Your task to perform on an android device: Add "jbl flip 4" to the cart on costco.com Image 0: 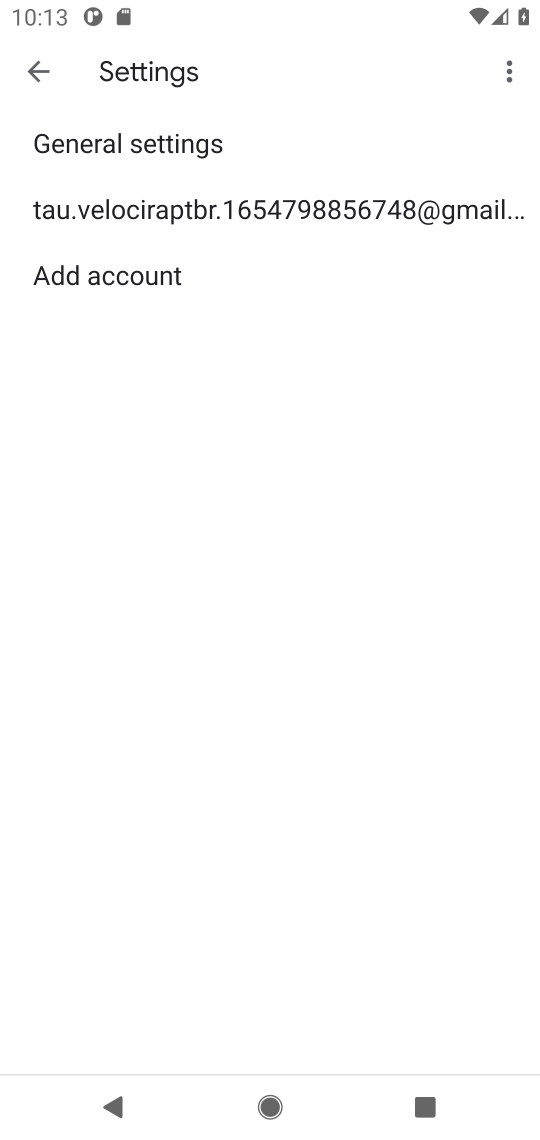
Step 0: press home button
Your task to perform on an android device: Add "jbl flip 4" to the cart on costco.com Image 1: 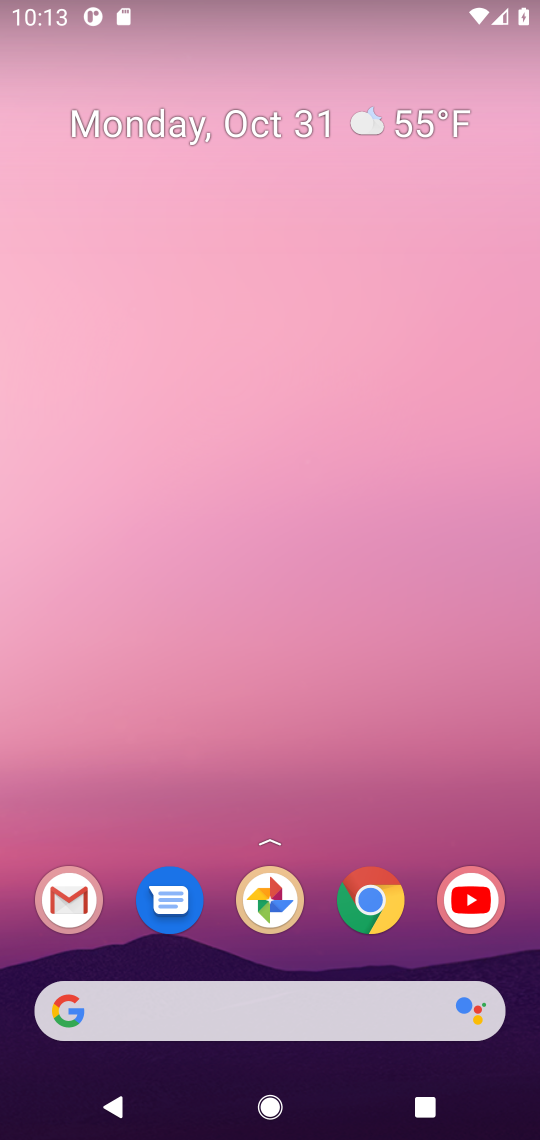
Step 1: click (368, 911)
Your task to perform on an android device: Add "jbl flip 4" to the cart on costco.com Image 2: 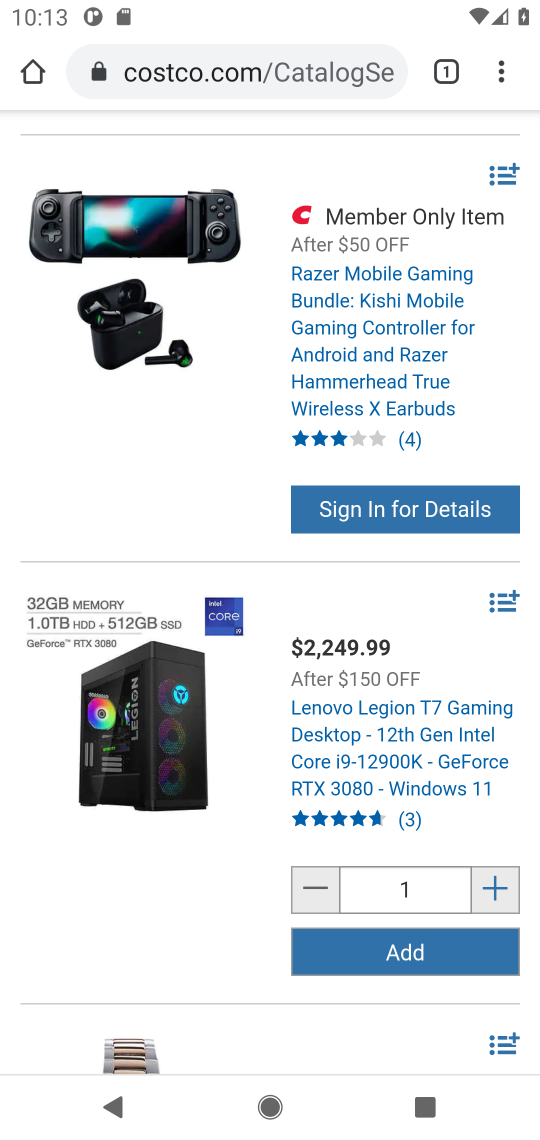
Step 2: drag from (201, 437) to (244, 999)
Your task to perform on an android device: Add "jbl flip 4" to the cart on costco.com Image 3: 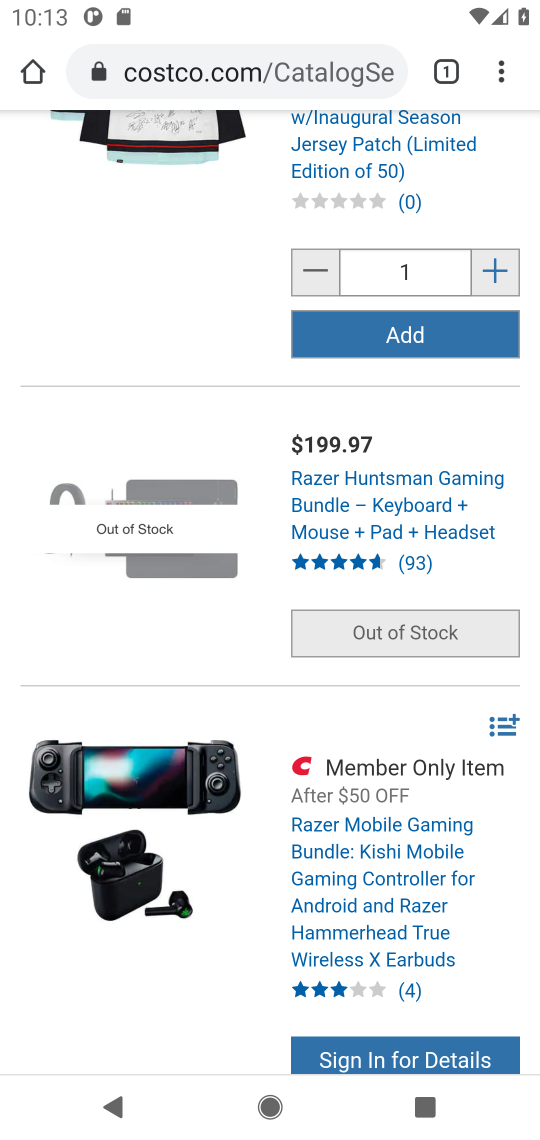
Step 3: drag from (170, 327) to (194, 958)
Your task to perform on an android device: Add "jbl flip 4" to the cart on costco.com Image 4: 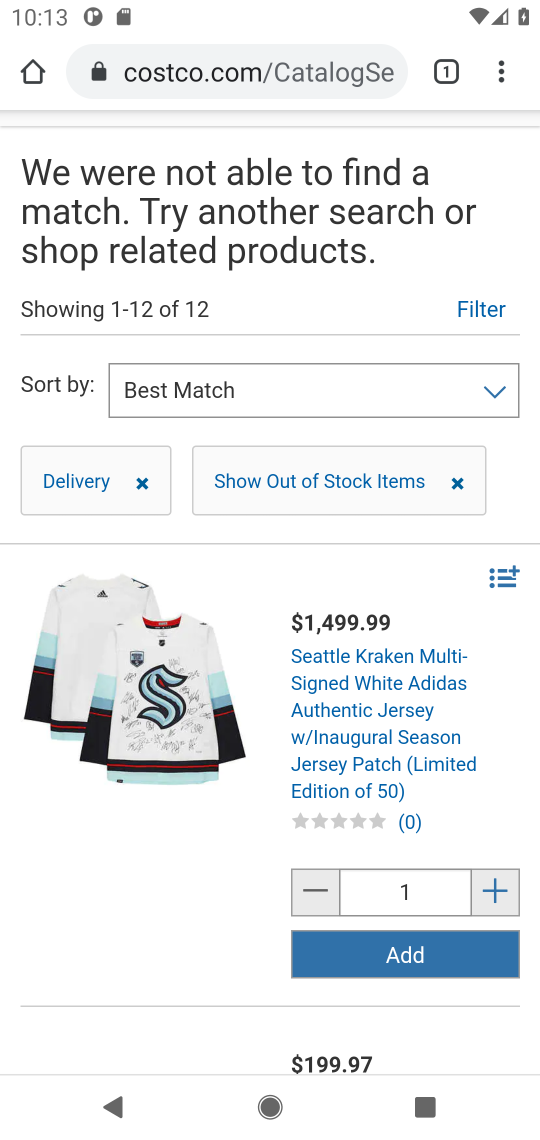
Step 4: drag from (185, 283) to (209, 807)
Your task to perform on an android device: Add "jbl flip 4" to the cart on costco.com Image 5: 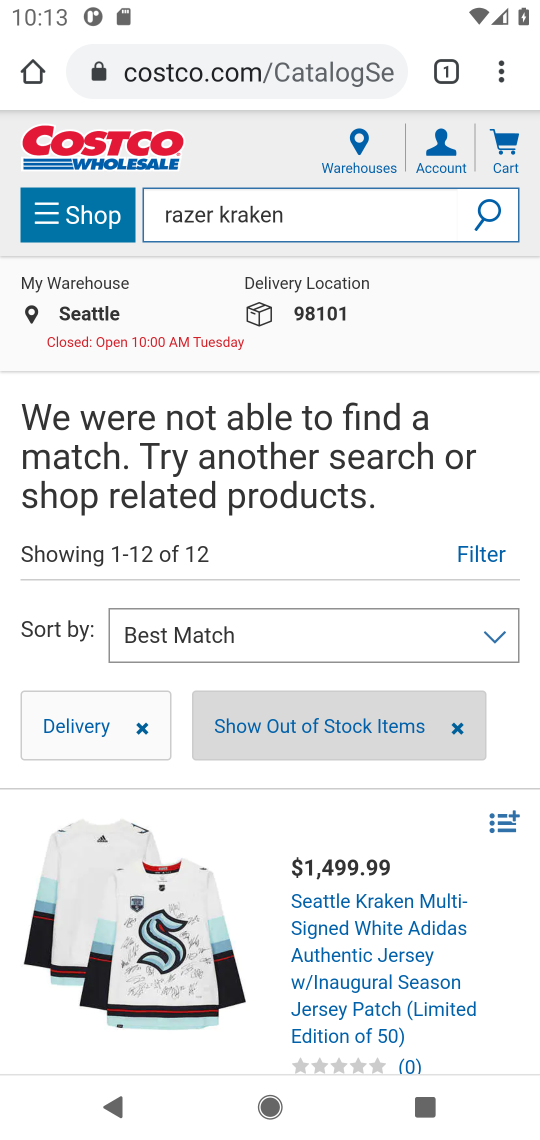
Step 5: click (280, 213)
Your task to perform on an android device: Add "jbl flip 4" to the cart on costco.com Image 6: 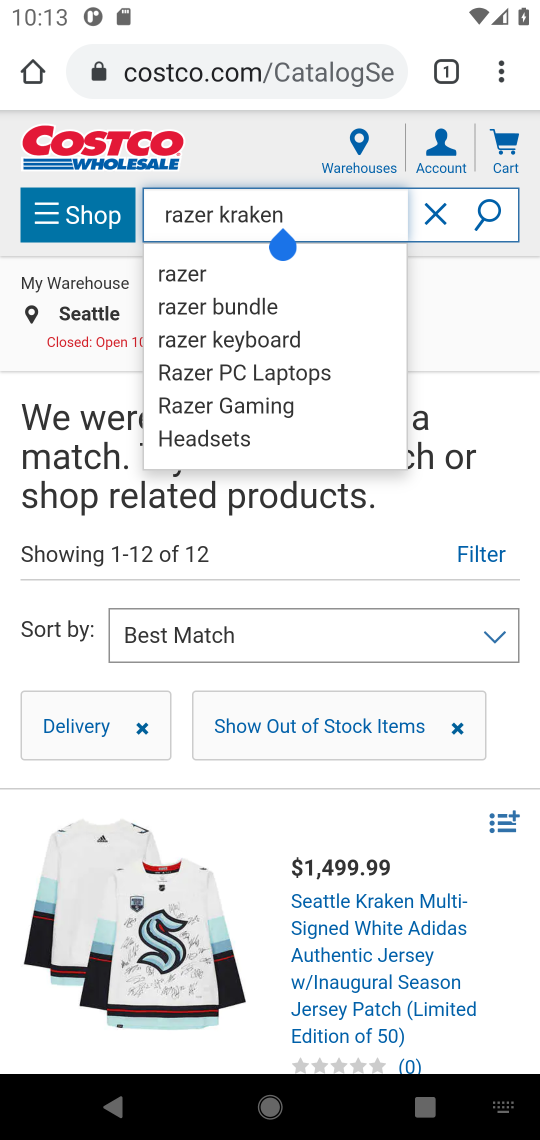
Step 6: click (439, 217)
Your task to perform on an android device: Add "jbl flip 4" to the cart on costco.com Image 7: 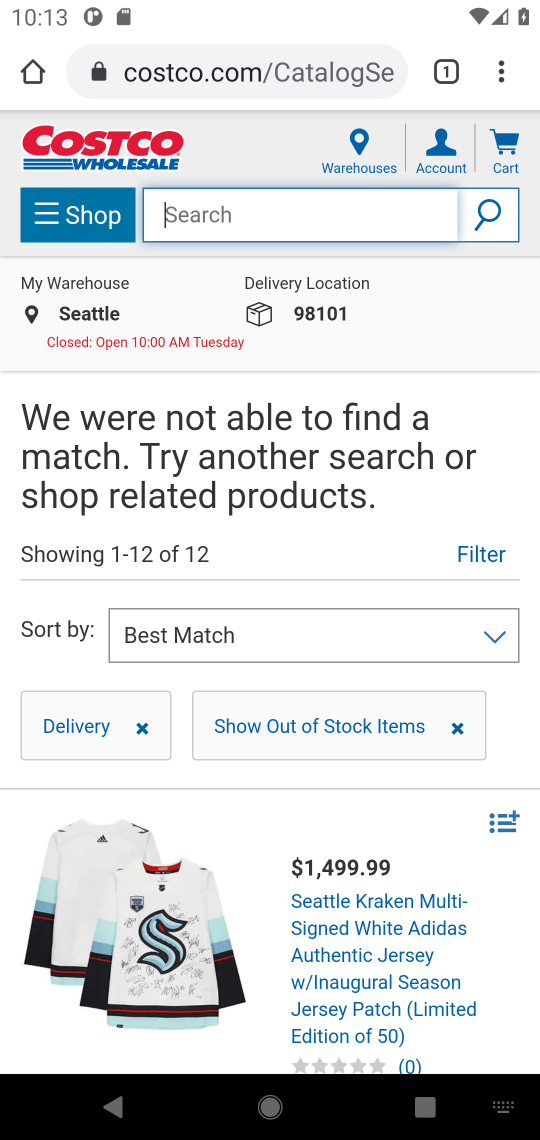
Step 7: type "jbl flip 4"
Your task to perform on an android device: Add "jbl flip 4" to the cart on costco.com Image 8: 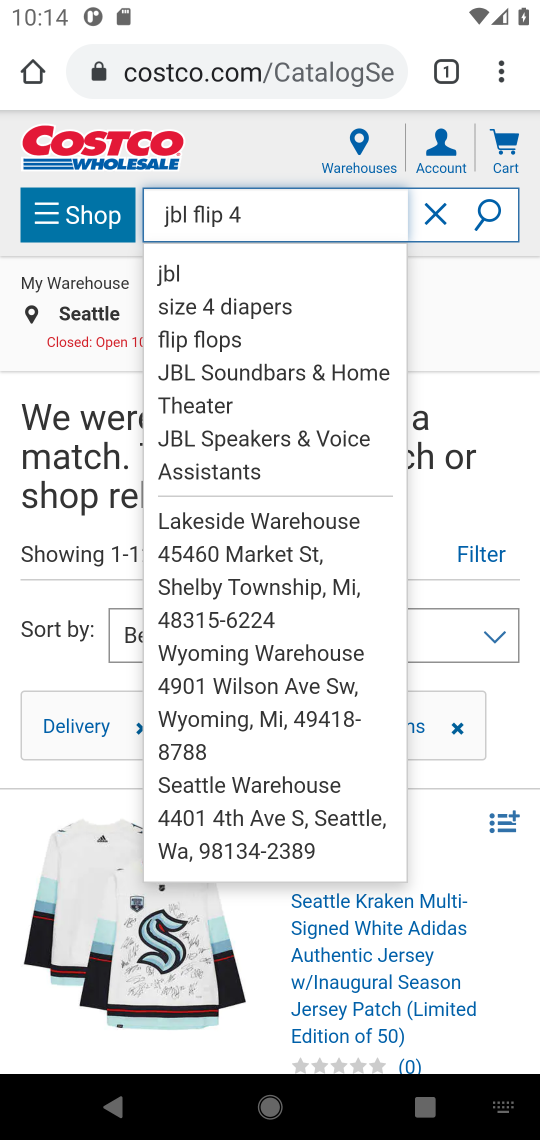
Step 8: click (490, 212)
Your task to perform on an android device: Add "jbl flip 4" to the cart on costco.com Image 9: 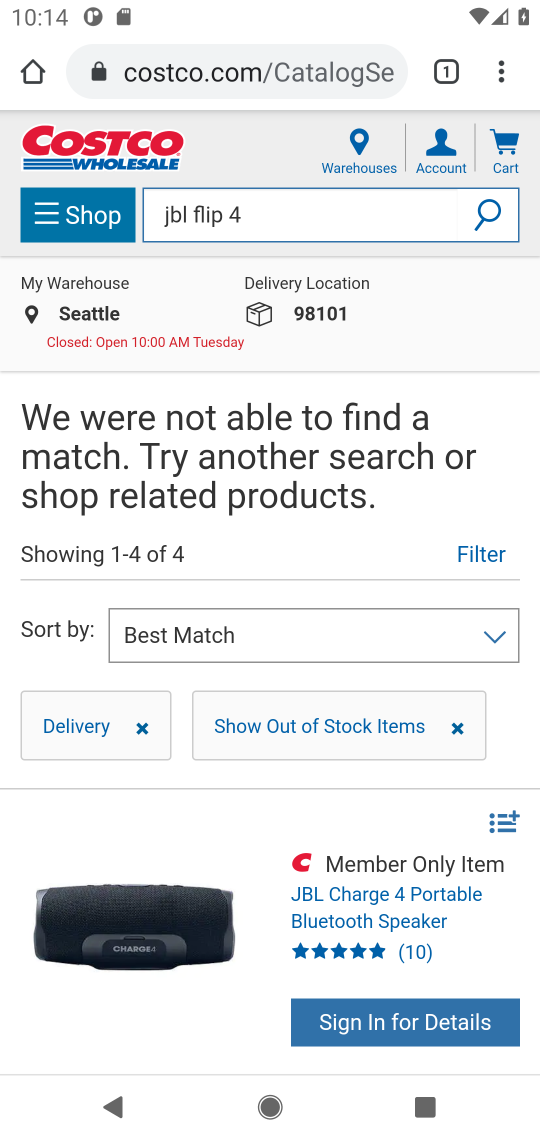
Step 9: task complete